Your task to perform on an android device: all mails in gmail Image 0: 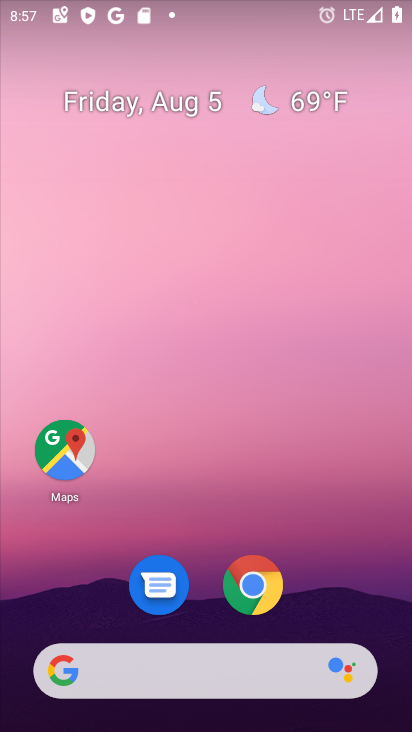
Step 0: drag from (210, 475) to (211, 68)
Your task to perform on an android device: all mails in gmail Image 1: 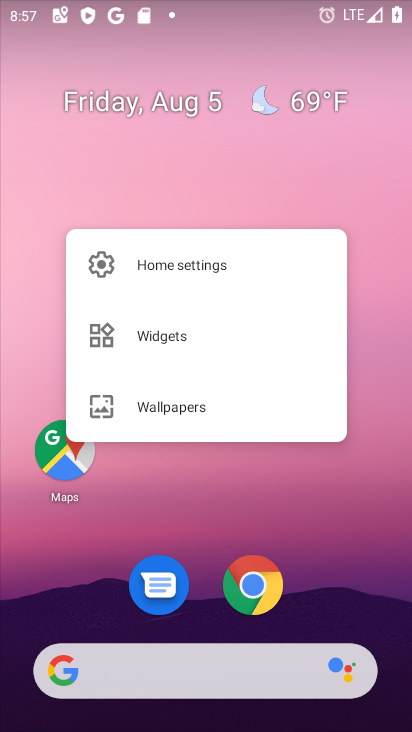
Step 1: click (269, 164)
Your task to perform on an android device: all mails in gmail Image 2: 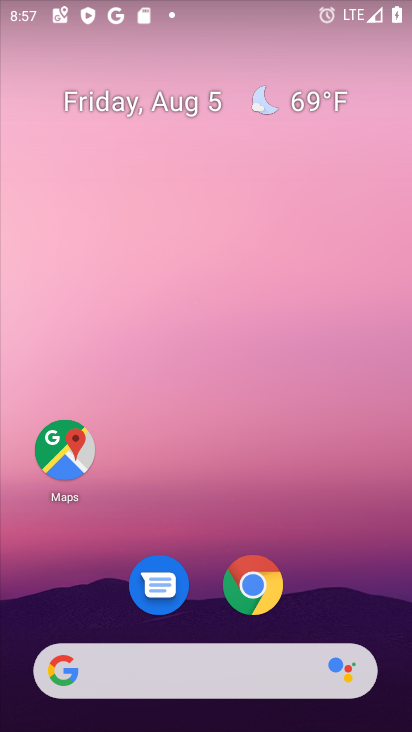
Step 2: drag from (314, 596) to (333, 22)
Your task to perform on an android device: all mails in gmail Image 3: 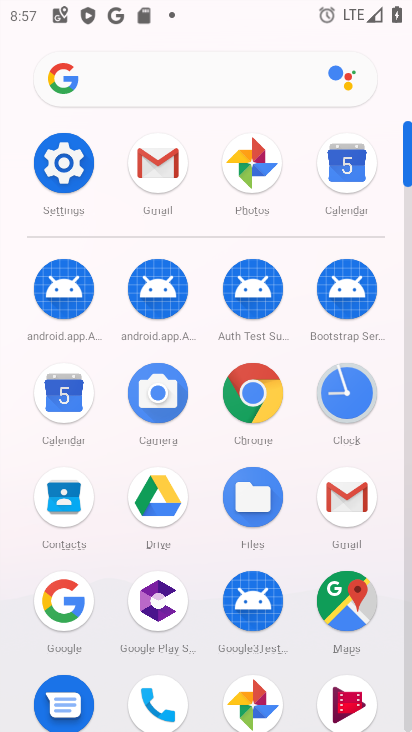
Step 3: click (157, 178)
Your task to perform on an android device: all mails in gmail Image 4: 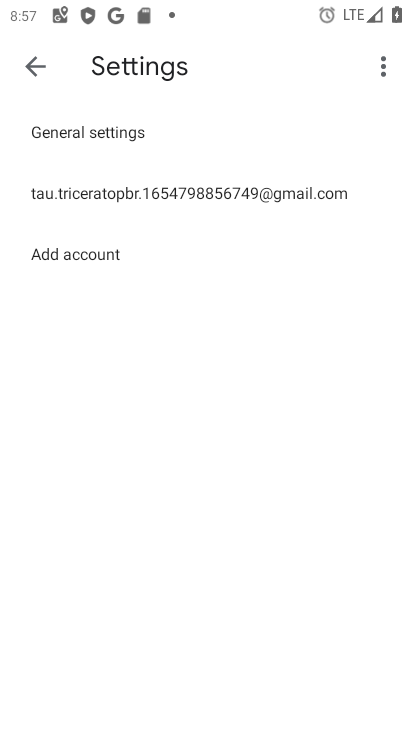
Step 4: click (35, 61)
Your task to perform on an android device: all mails in gmail Image 5: 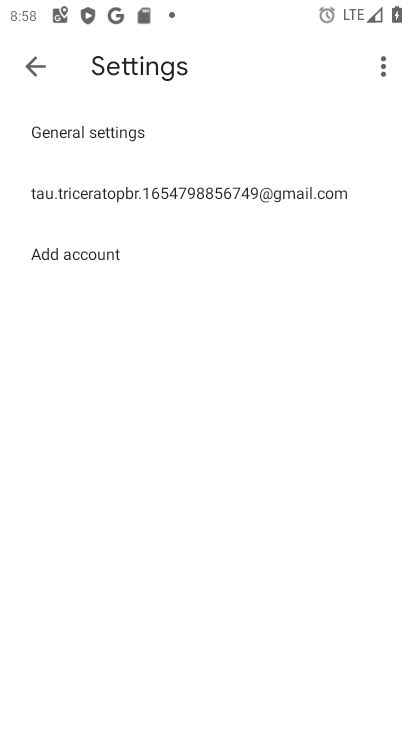
Step 5: click (35, 62)
Your task to perform on an android device: all mails in gmail Image 6: 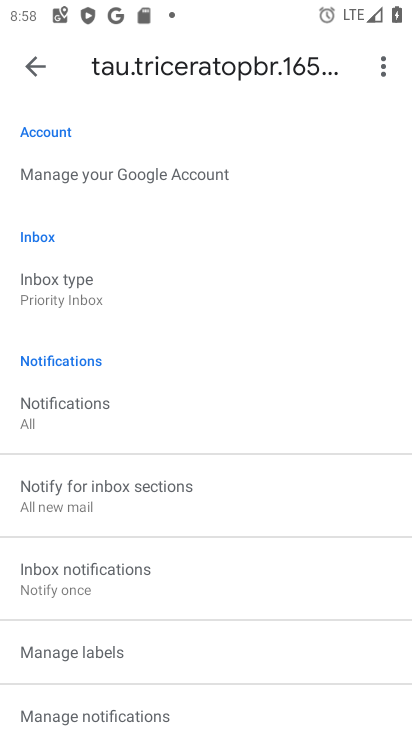
Step 6: drag from (230, 589) to (218, 164)
Your task to perform on an android device: all mails in gmail Image 7: 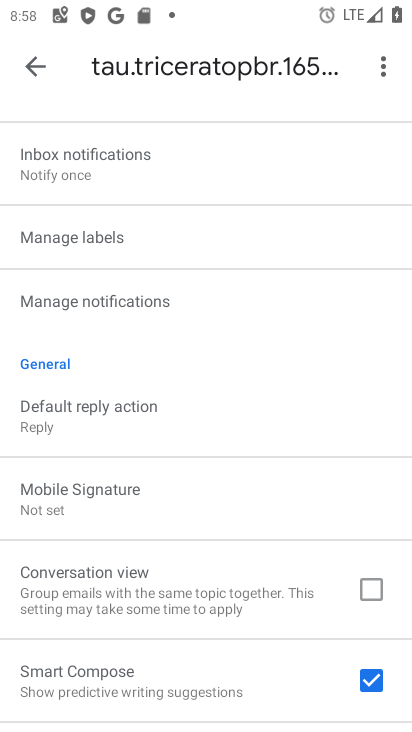
Step 7: click (41, 58)
Your task to perform on an android device: all mails in gmail Image 8: 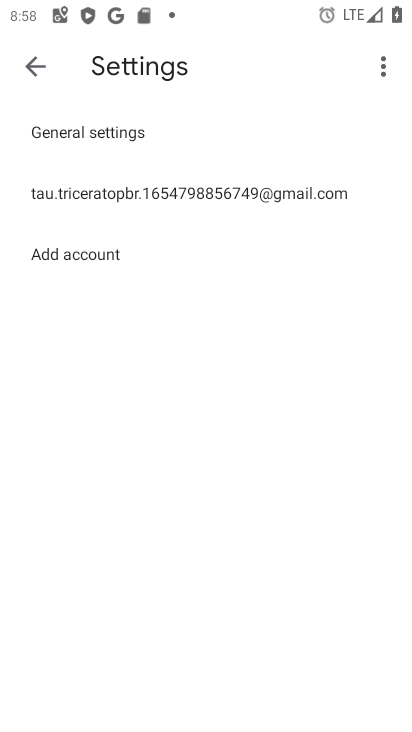
Step 8: click (37, 63)
Your task to perform on an android device: all mails in gmail Image 9: 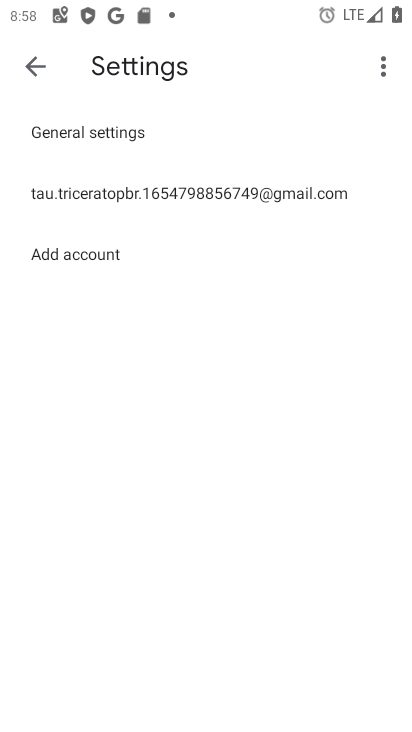
Step 9: click (37, 61)
Your task to perform on an android device: all mails in gmail Image 10: 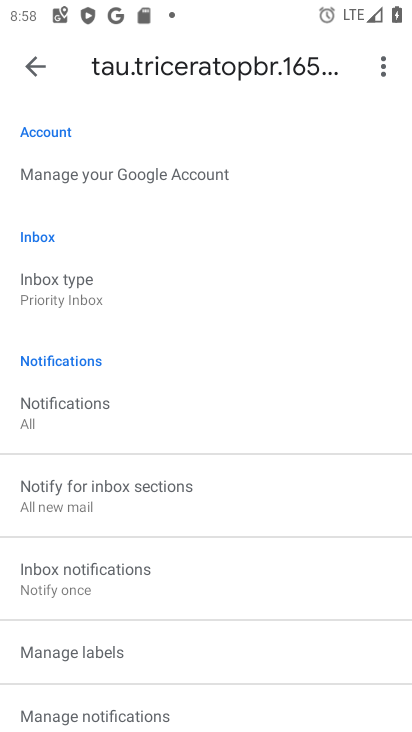
Step 10: click (37, 63)
Your task to perform on an android device: all mails in gmail Image 11: 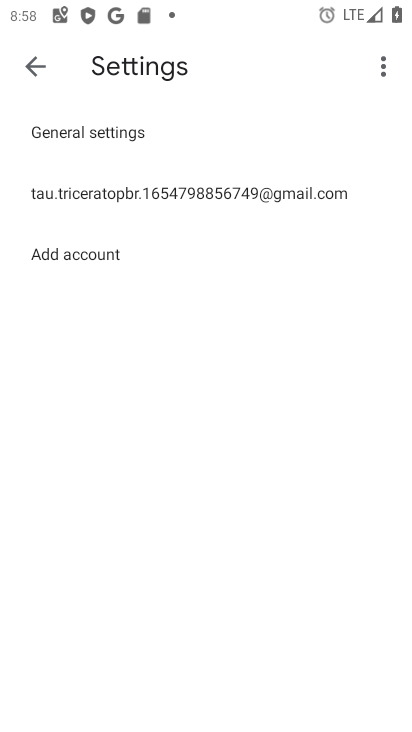
Step 11: click (37, 63)
Your task to perform on an android device: all mails in gmail Image 12: 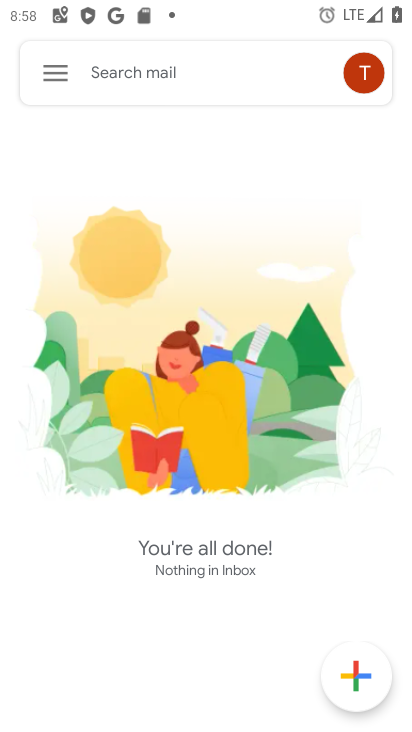
Step 12: click (53, 77)
Your task to perform on an android device: all mails in gmail Image 13: 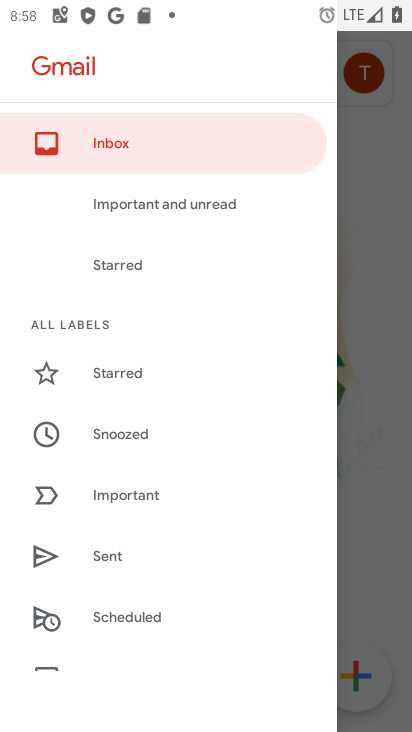
Step 13: drag from (173, 537) to (221, 91)
Your task to perform on an android device: all mails in gmail Image 14: 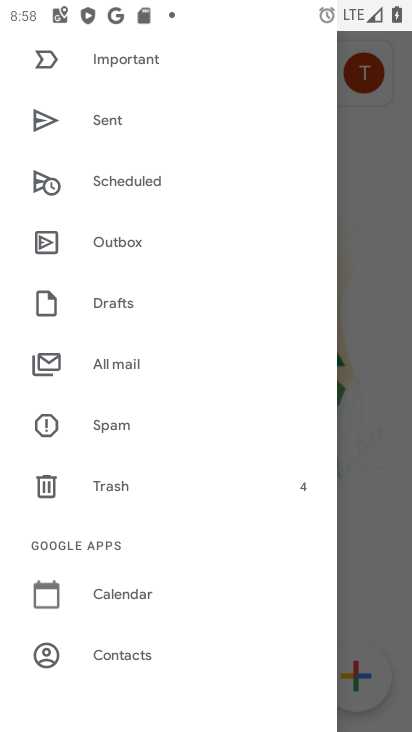
Step 14: click (126, 355)
Your task to perform on an android device: all mails in gmail Image 15: 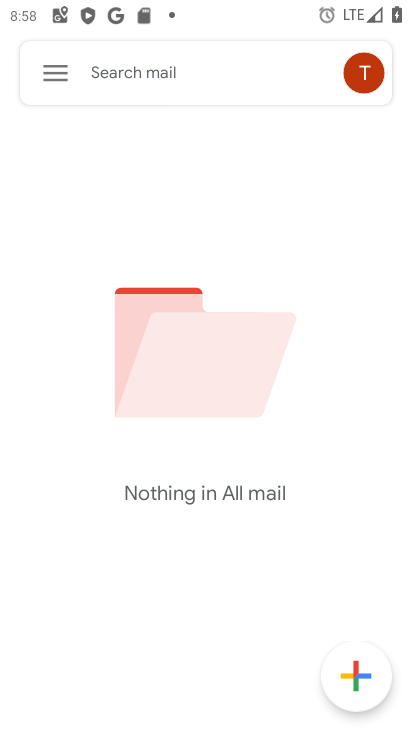
Step 15: task complete